Your task to perform on an android device: Go to sound settings Image 0: 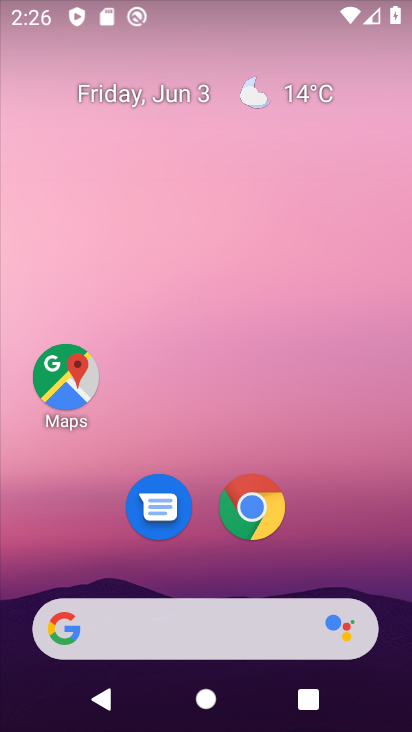
Step 0: drag from (327, 530) to (215, 122)
Your task to perform on an android device: Go to sound settings Image 1: 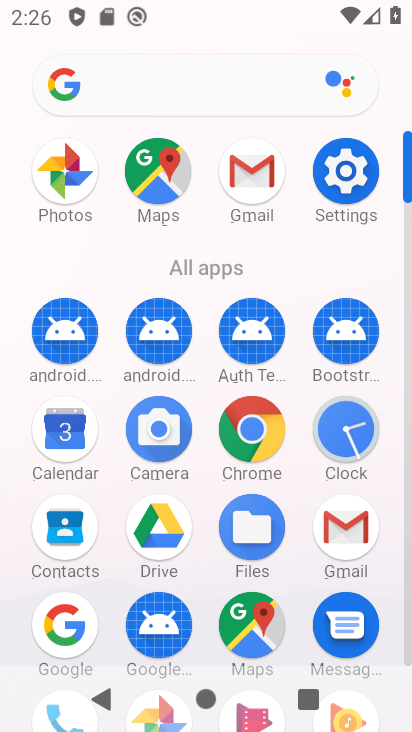
Step 1: click (347, 169)
Your task to perform on an android device: Go to sound settings Image 2: 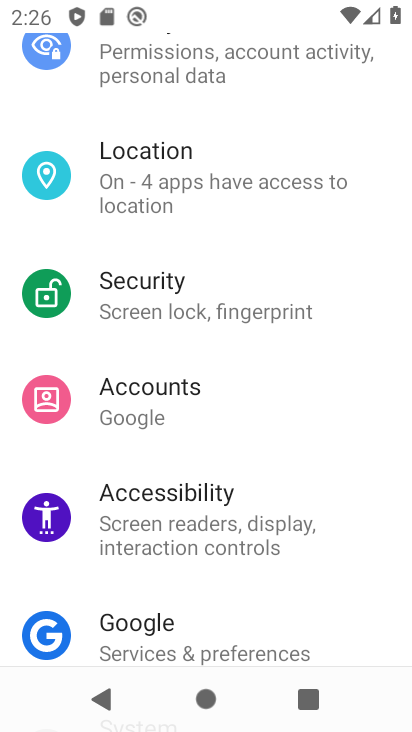
Step 2: drag from (196, 258) to (216, 370)
Your task to perform on an android device: Go to sound settings Image 3: 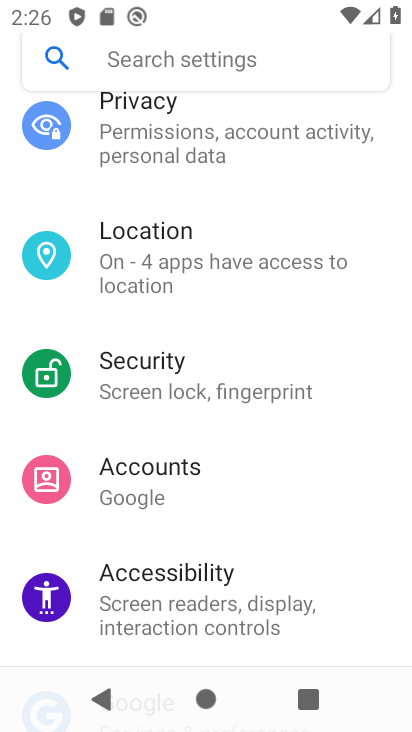
Step 3: drag from (224, 190) to (243, 311)
Your task to perform on an android device: Go to sound settings Image 4: 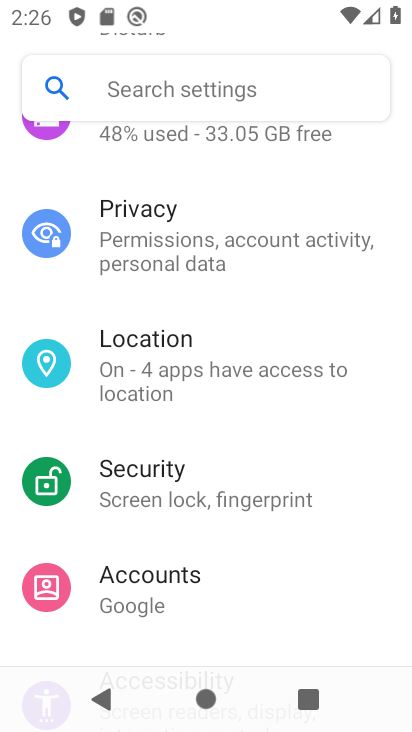
Step 4: drag from (215, 168) to (248, 291)
Your task to perform on an android device: Go to sound settings Image 5: 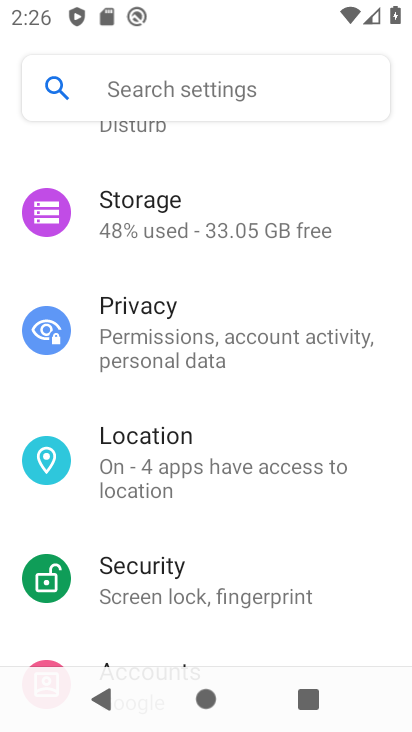
Step 5: drag from (211, 168) to (265, 331)
Your task to perform on an android device: Go to sound settings Image 6: 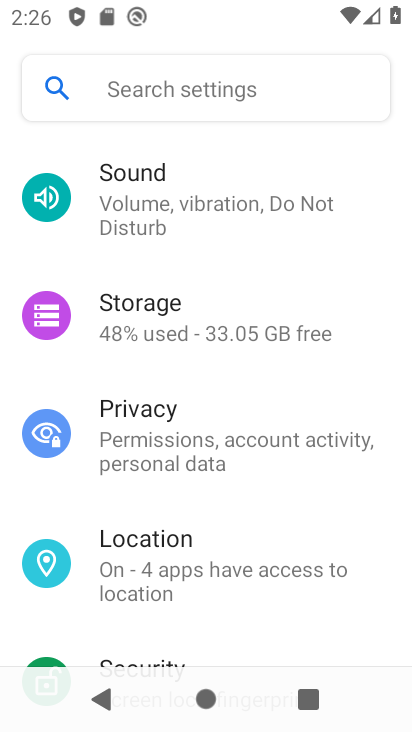
Step 6: click (224, 199)
Your task to perform on an android device: Go to sound settings Image 7: 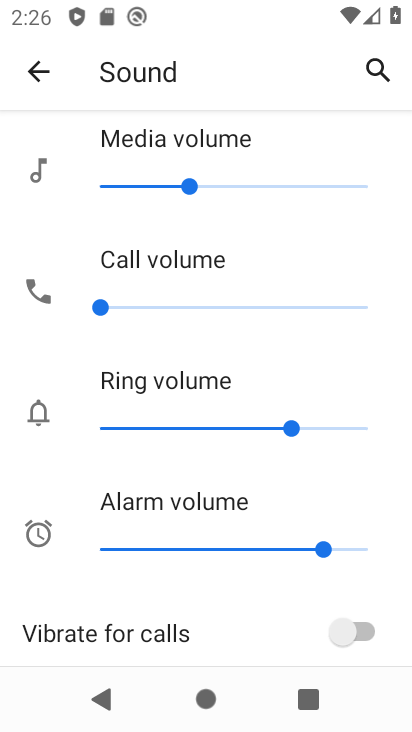
Step 7: task complete